Your task to perform on an android device: What's on my calendar tomorrow? Image 0: 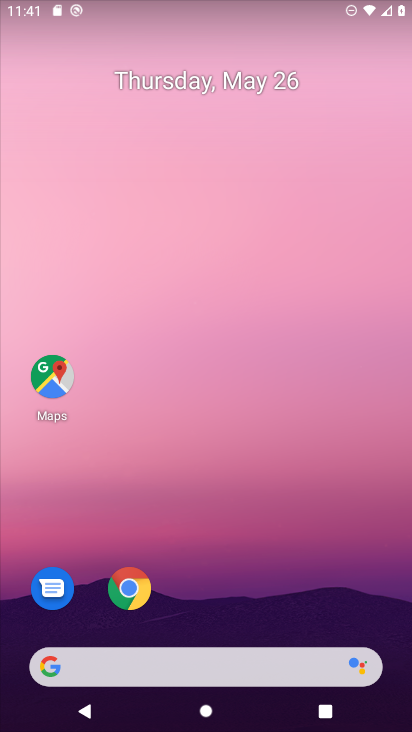
Step 0: drag from (377, 610) to (332, 17)
Your task to perform on an android device: What's on my calendar tomorrow? Image 1: 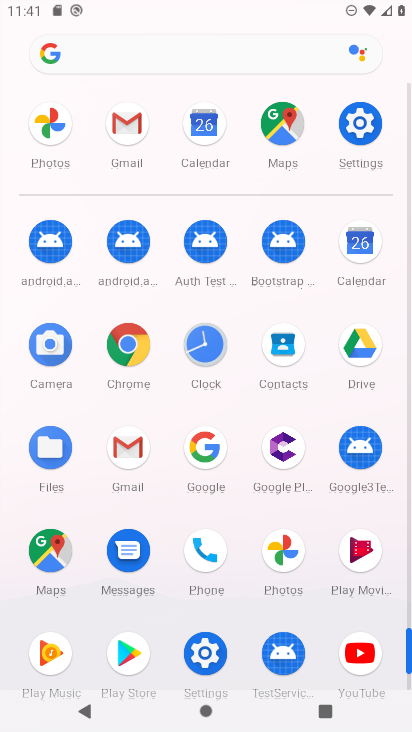
Step 1: click (357, 239)
Your task to perform on an android device: What's on my calendar tomorrow? Image 2: 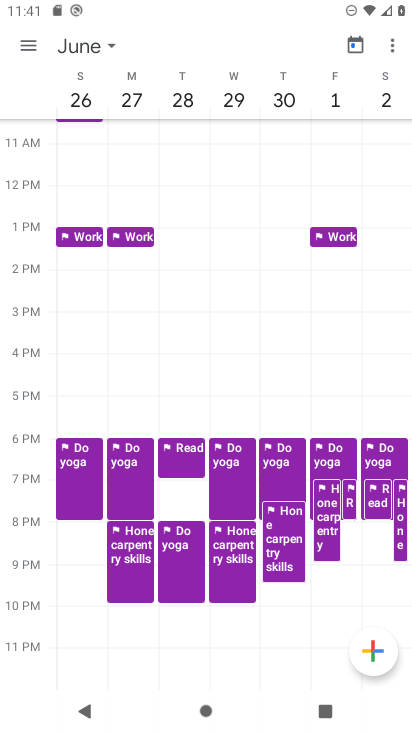
Step 2: click (23, 41)
Your task to perform on an android device: What's on my calendar tomorrow? Image 3: 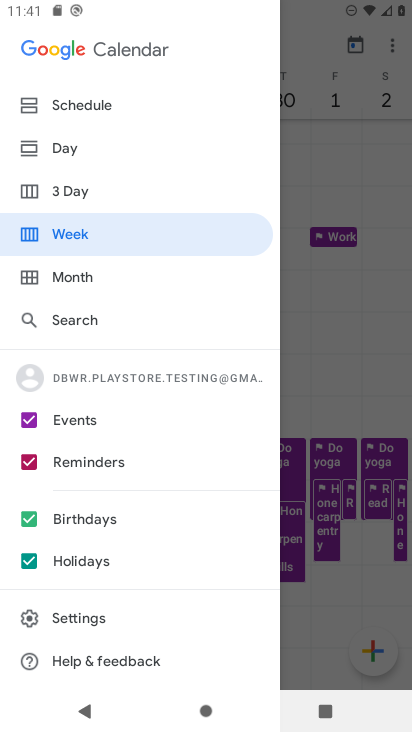
Step 3: click (65, 143)
Your task to perform on an android device: What's on my calendar tomorrow? Image 4: 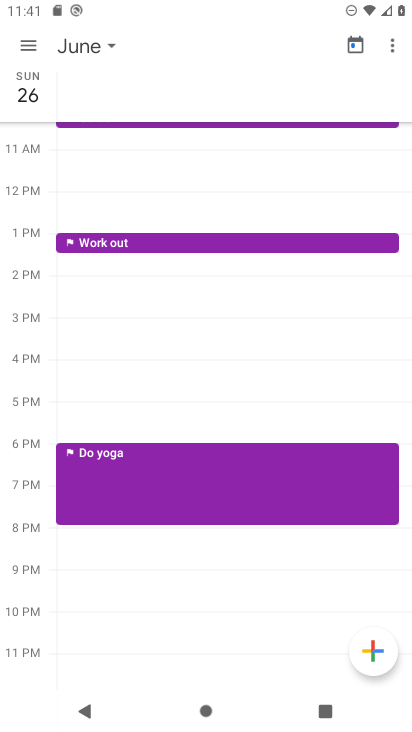
Step 4: click (112, 51)
Your task to perform on an android device: What's on my calendar tomorrow? Image 5: 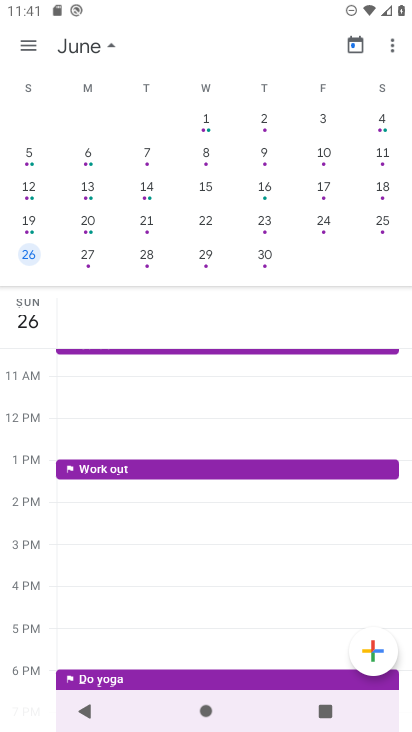
Step 5: drag from (28, 209) to (389, 184)
Your task to perform on an android device: What's on my calendar tomorrow? Image 6: 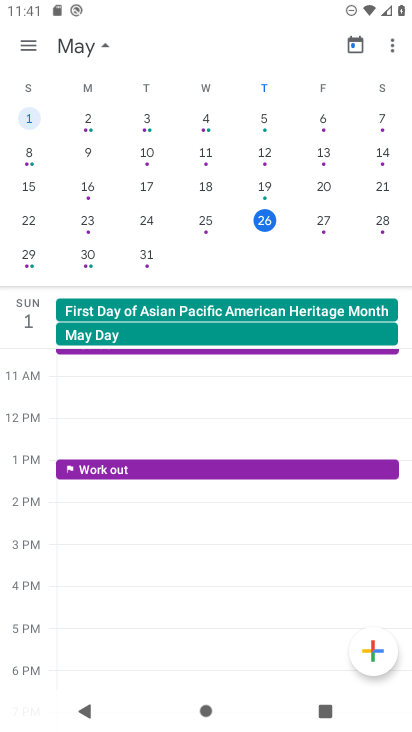
Step 6: click (322, 221)
Your task to perform on an android device: What's on my calendar tomorrow? Image 7: 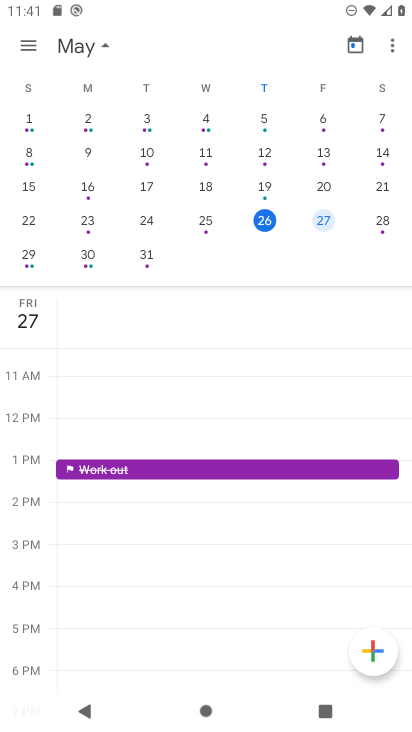
Step 7: task complete